Your task to perform on an android device: open app "Pluto TV - Live TV and Movies" (install if not already installed) Image 0: 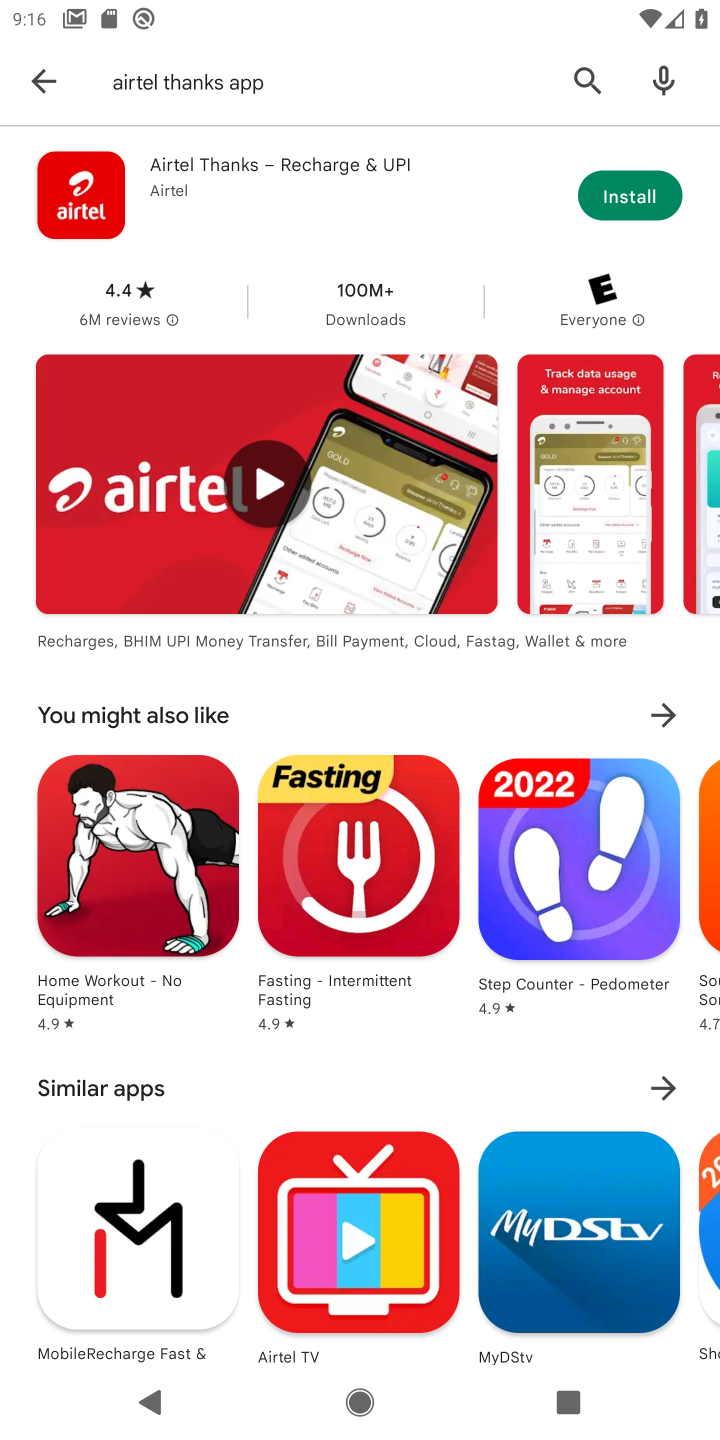
Step 0: press home button
Your task to perform on an android device: open app "Pluto TV - Live TV and Movies" (install if not already installed) Image 1: 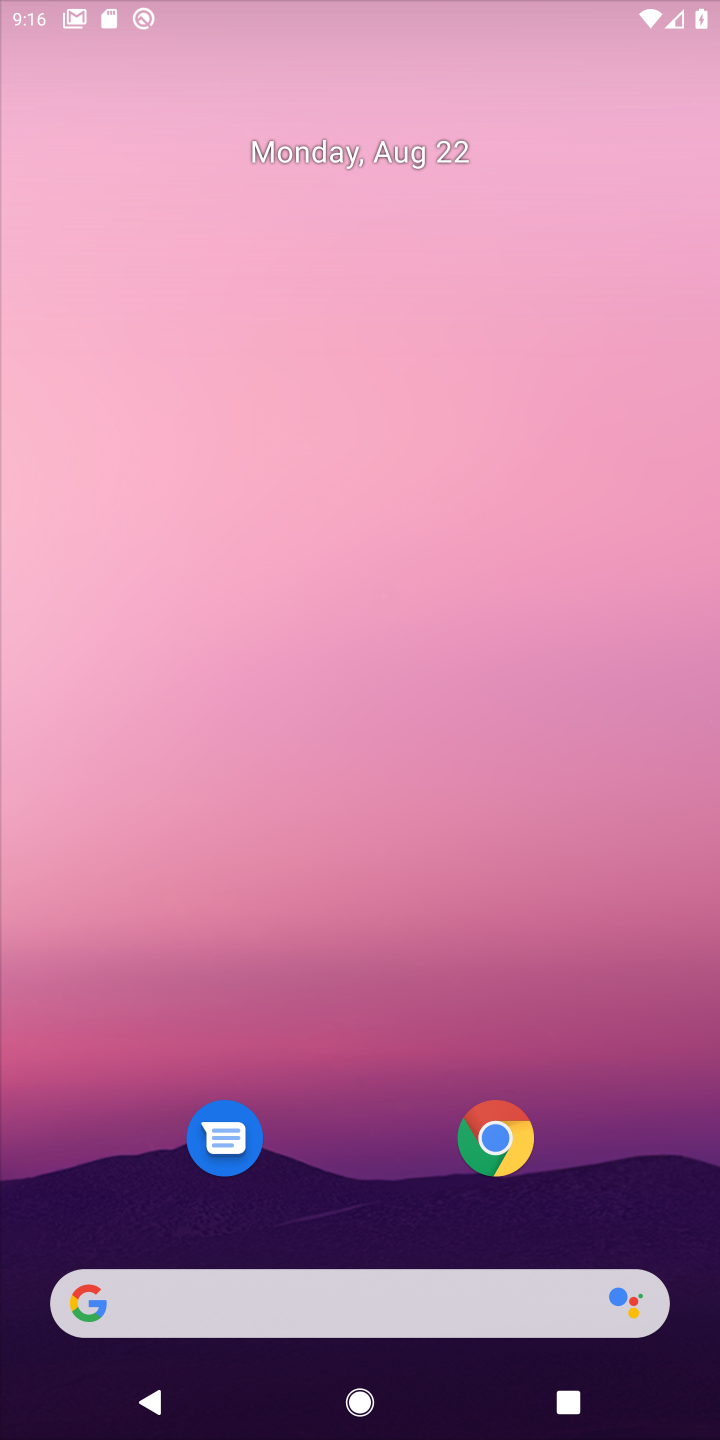
Step 1: drag from (319, 1228) to (447, 53)
Your task to perform on an android device: open app "Pluto TV - Live TV and Movies" (install if not already installed) Image 2: 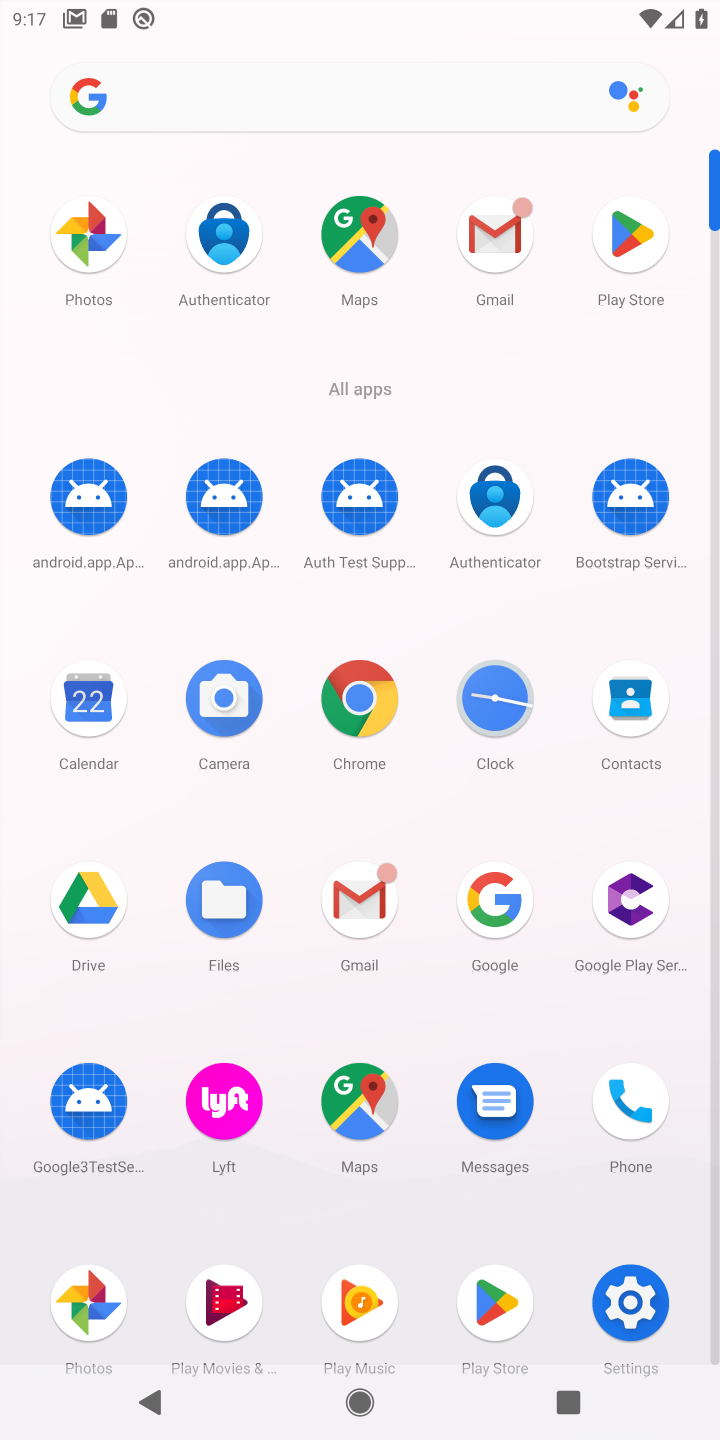
Step 2: click (483, 1320)
Your task to perform on an android device: open app "Pluto TV - Live TV and Movies" (install if not already installed) Image 3: 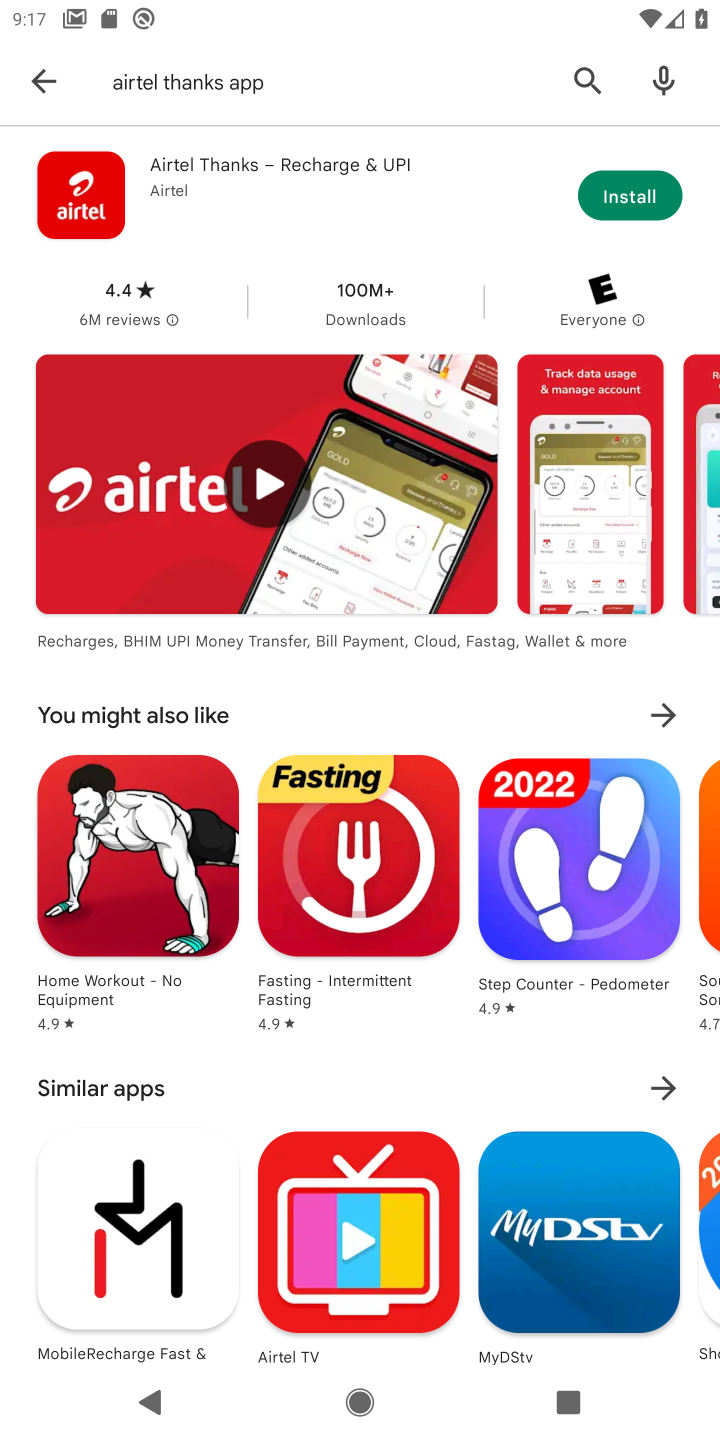
Step 3: click (53, 83)
Your task to perform on an android device: open app "Pluto TV - Live TV and Movies" (install if not already installed) Image 4: 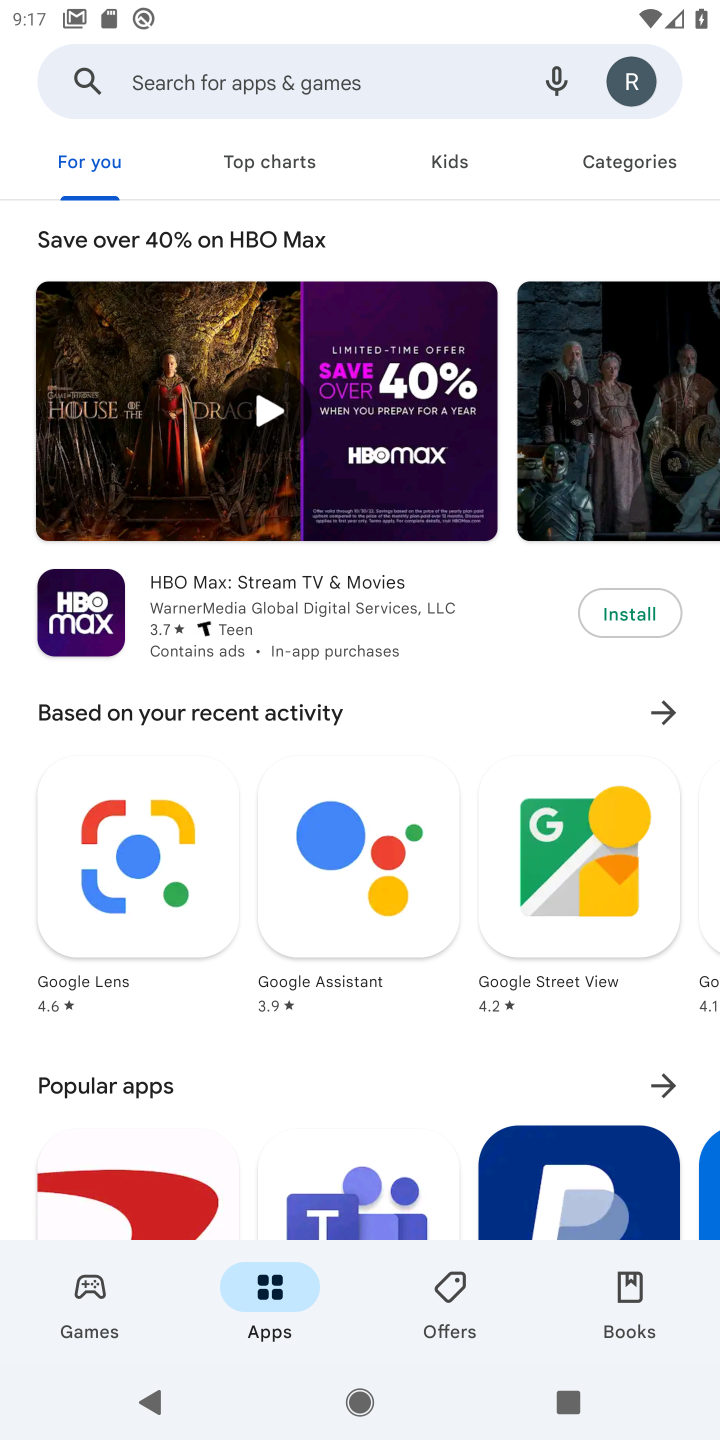
Step 4: click (153, 78)
Your task to perform on an android device: open app "Pluto TV - Live TV and Movies" (install if not already installed) Image 5: 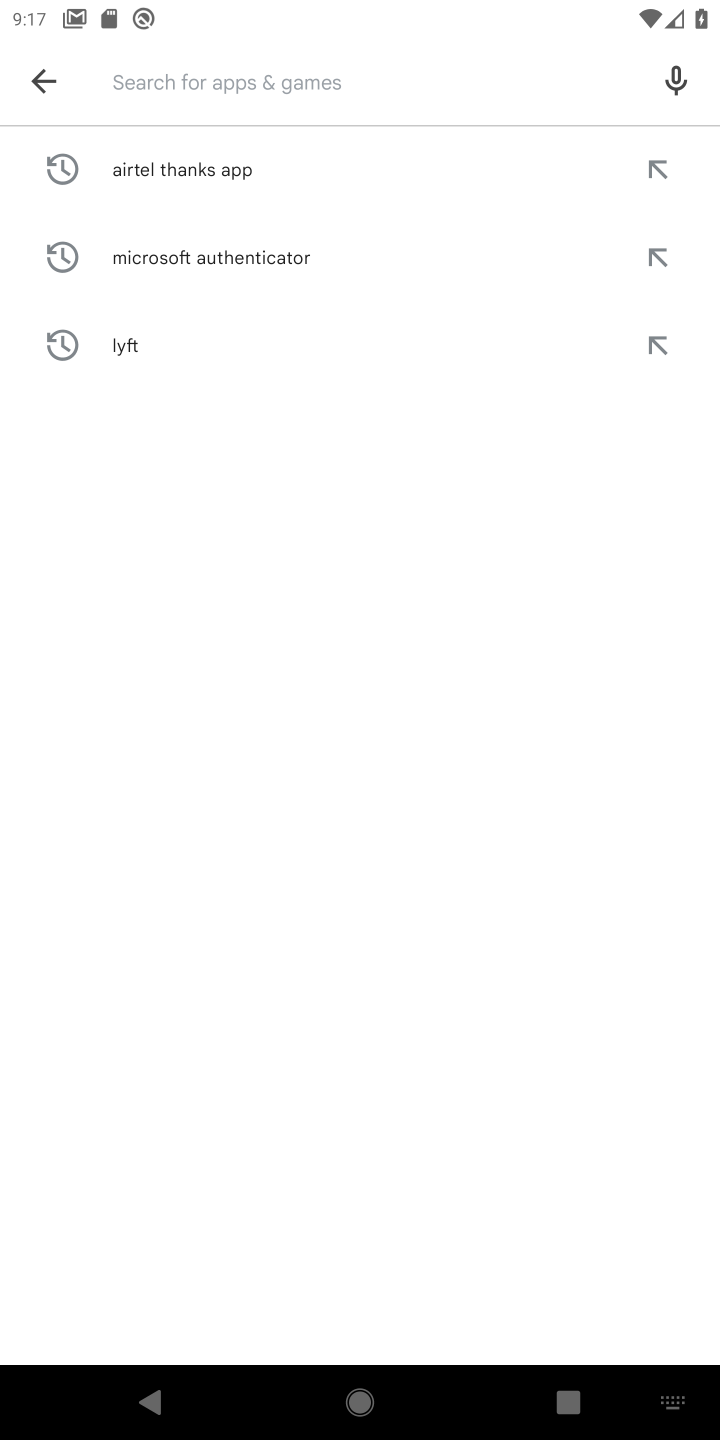
Step 5: type "Pluto TV - Live TV and Movies"
Your task to perform on an android device: open app "Pluto TV - Live TV and Movies" (install if not already installed) Image 6: 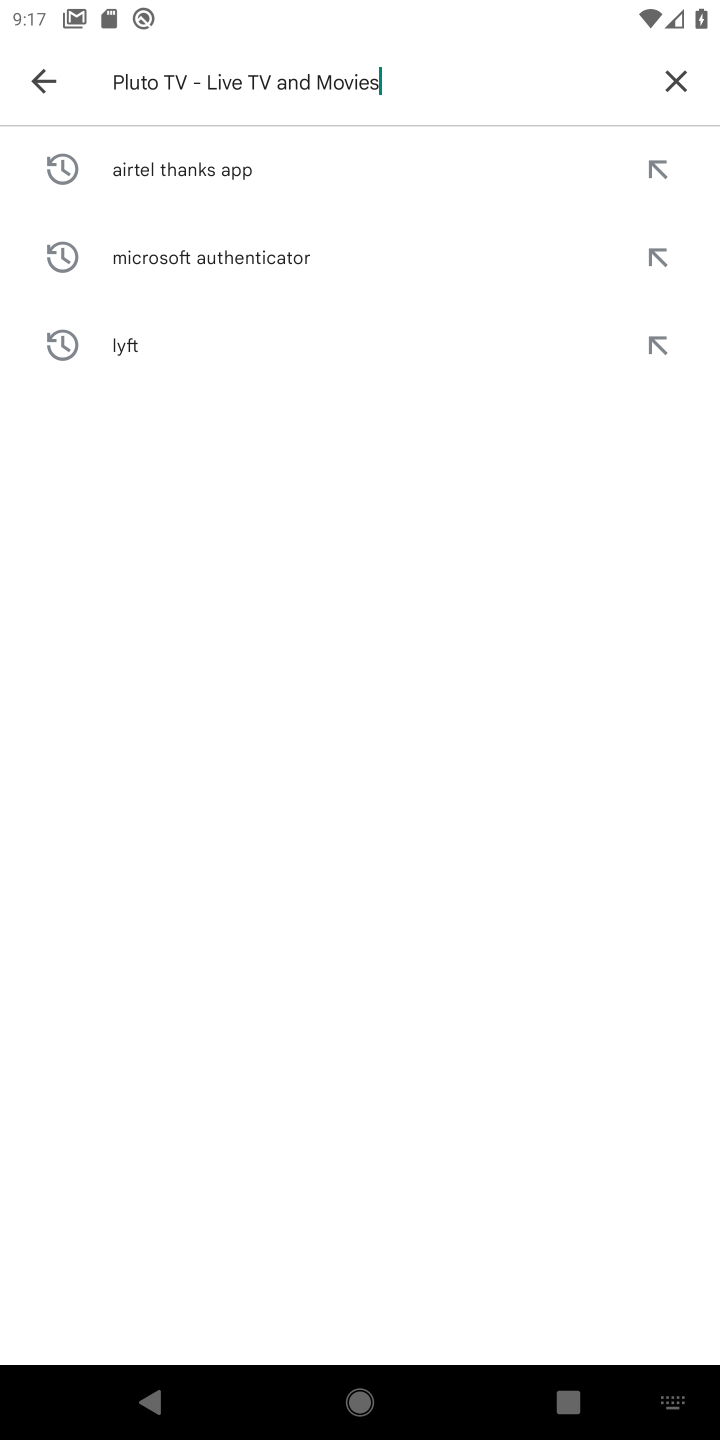
Step 6: type ""
Your task to perform on an android device: open app "Pluto TV - Live TV and Movies" (install if not already installed) Image 7: 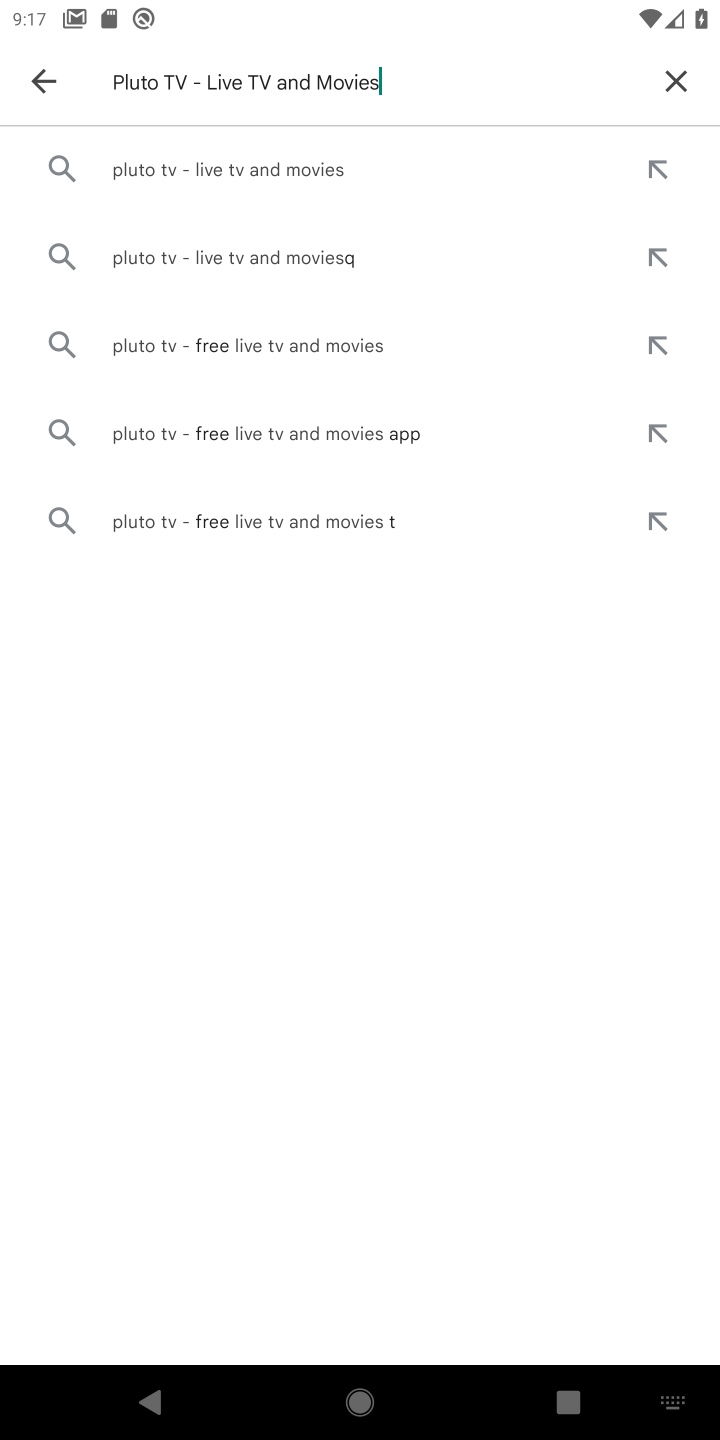
Step 7: click (212, 99)
Your task to perform on an android device: open app "Pluto TV - Live TV and Movies" (install if not already installed) Image 8: 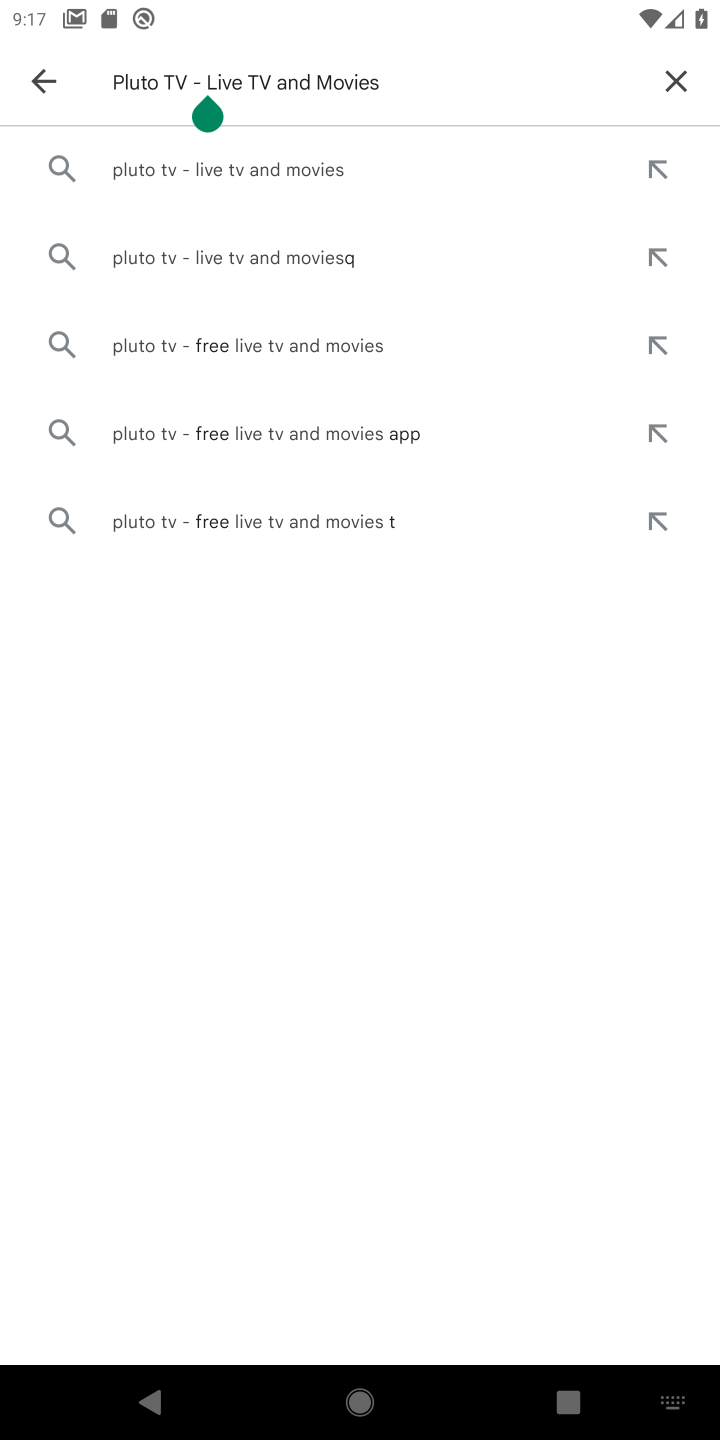
Step 8: click (210, 171)
Your task to perform on an android device: open app "Pluto TV - Live TV and Movies" (install if not already installed) Image 9: 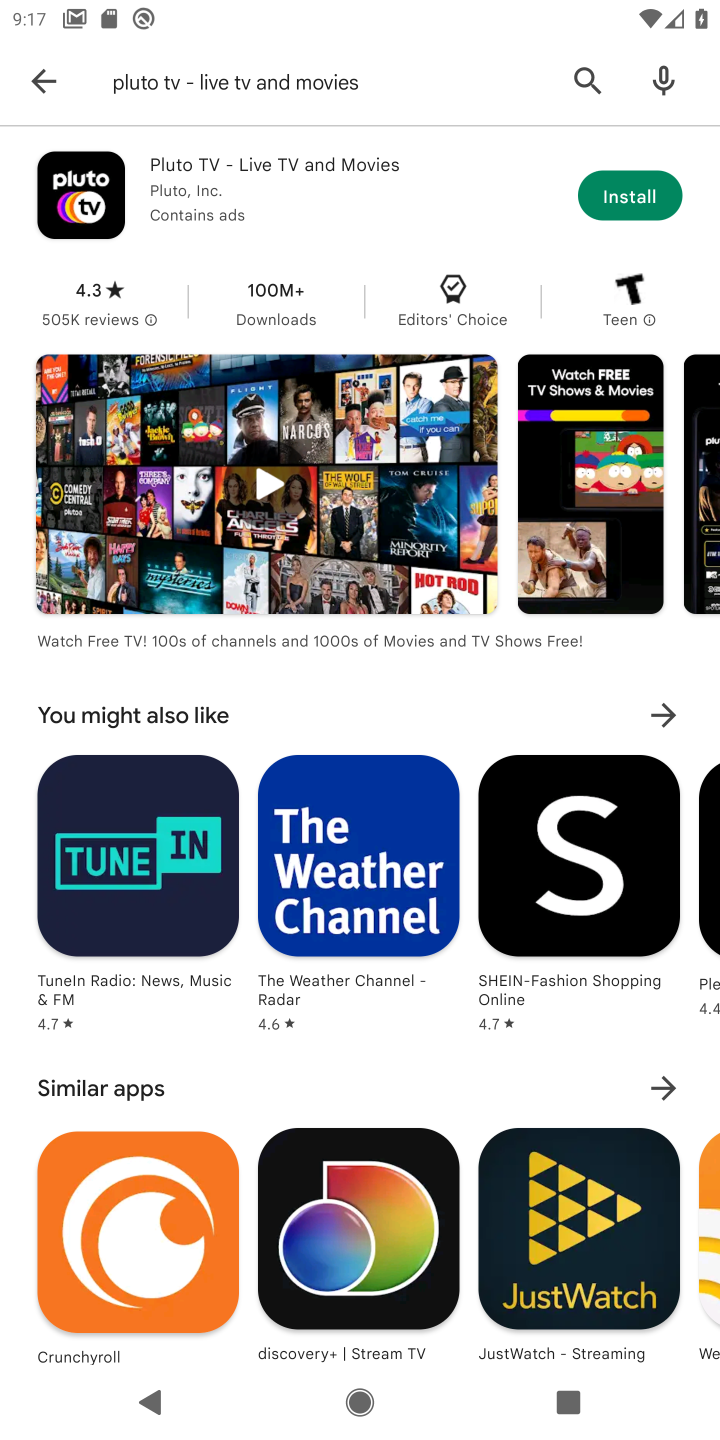
Step 9: click (626, 214)
Your task to perform on an android device: open app "Pluto TV - Live TV and Movies" (install if not already installed) Image 10: 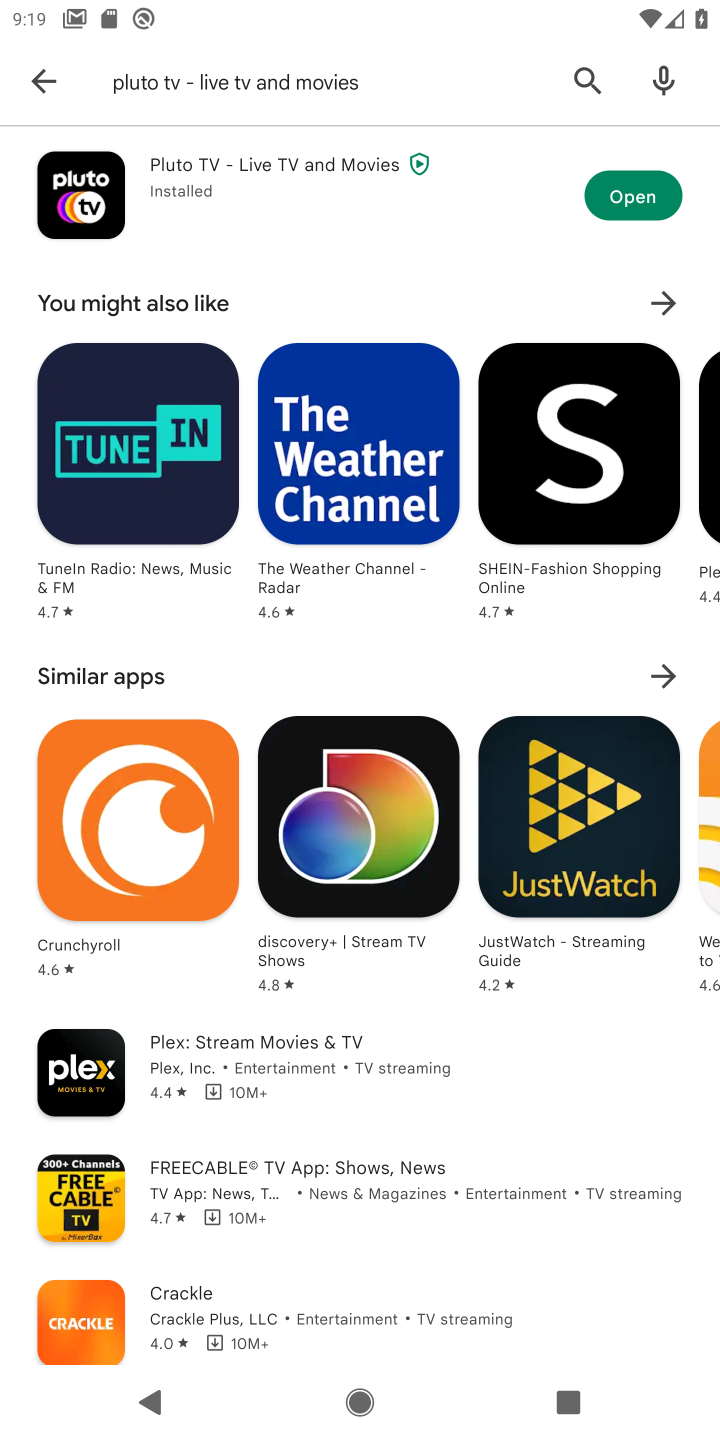
Step 10: click (585, 177)
Your task to perform on an android device: open app "Pluto TV - Live TV and Movies" (install if not already installed) Image 11: 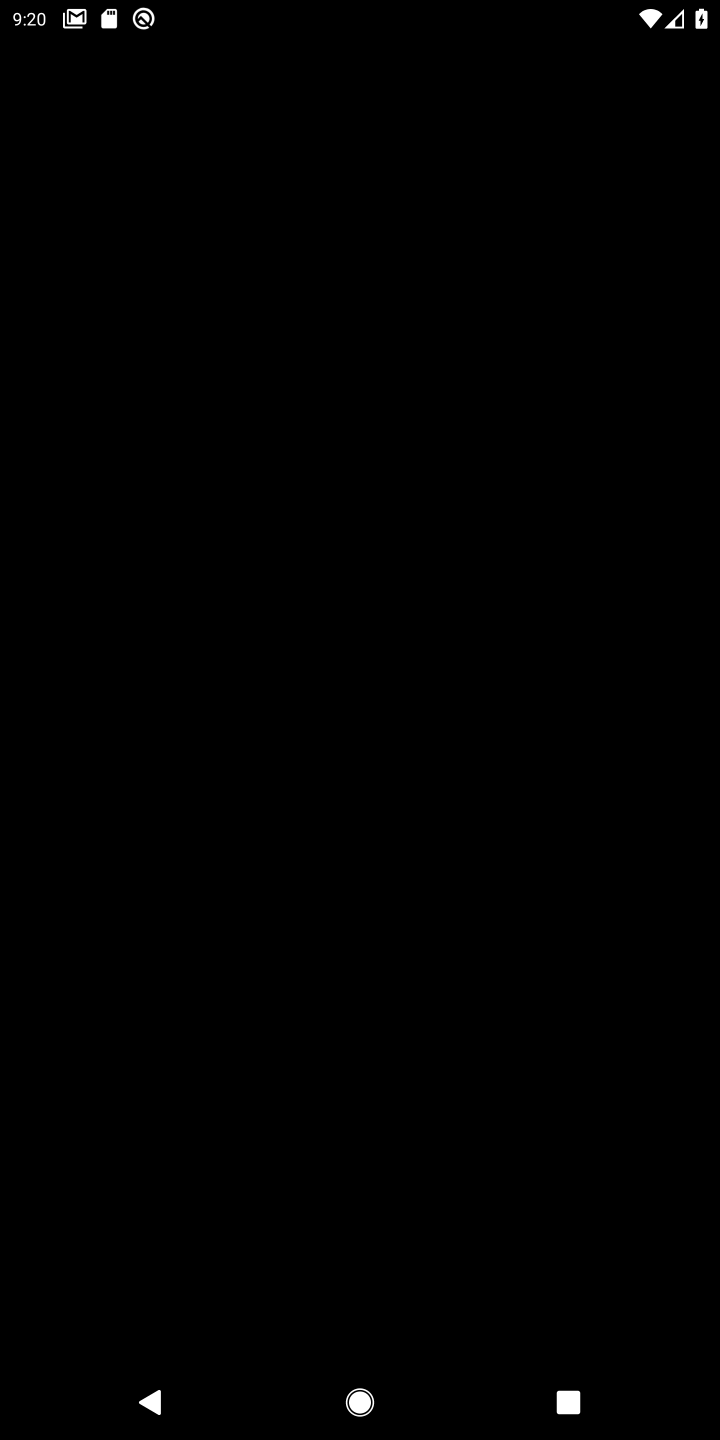
Step 11: task complete